Your task to perform on an android device: see sites visited before in the chrome app Image 0: 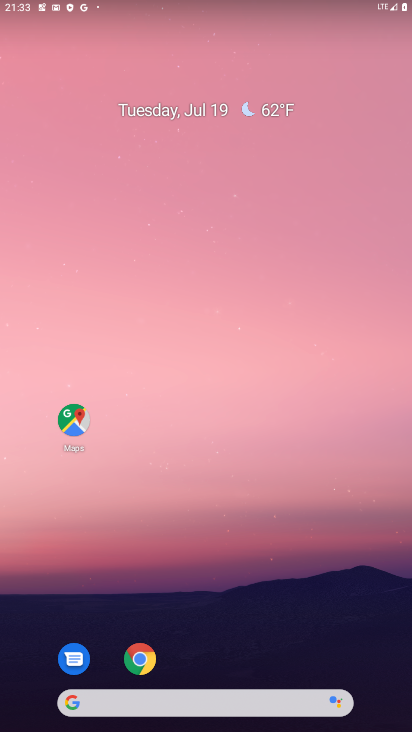
Step 0: press home button
Your task to perform on an android device: see sites visited before in the chrome app Image 1: 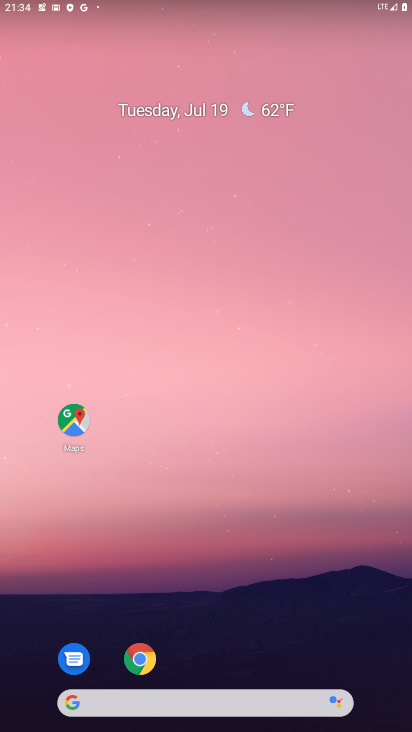
Step 1: click (139, 668)
Your task to perform on an android device: see sites visited before in the chrome app Image 2: 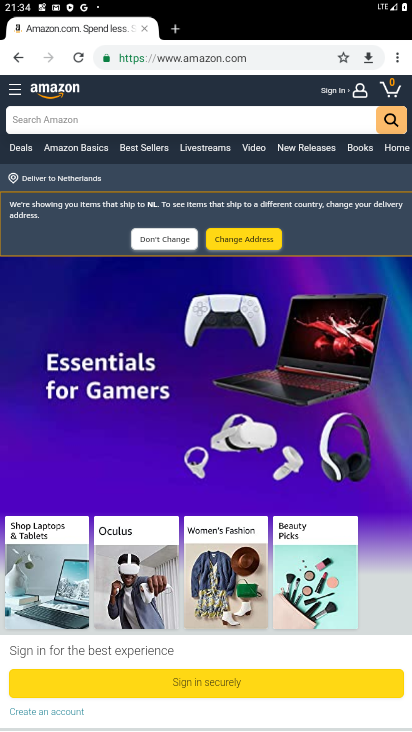
Step 2: drag from (400, 53) to (289, 407)
Your task to perform on an android device: see sites visited before in the chrome app Image 3: 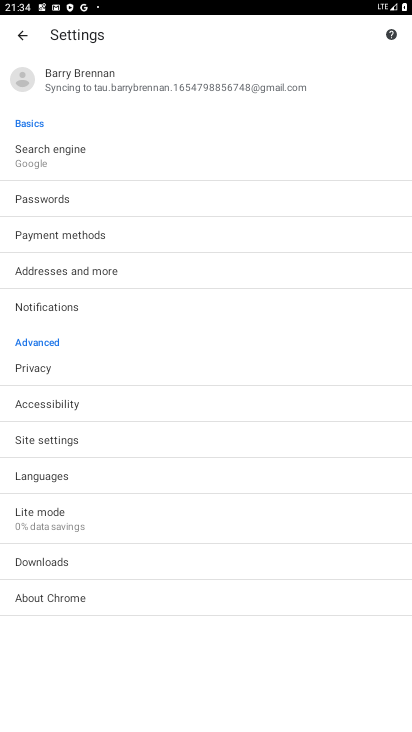
Step 3: click (16, 39)
Your task to perform on an android device: see sites visited before in the chrome app Image 4: 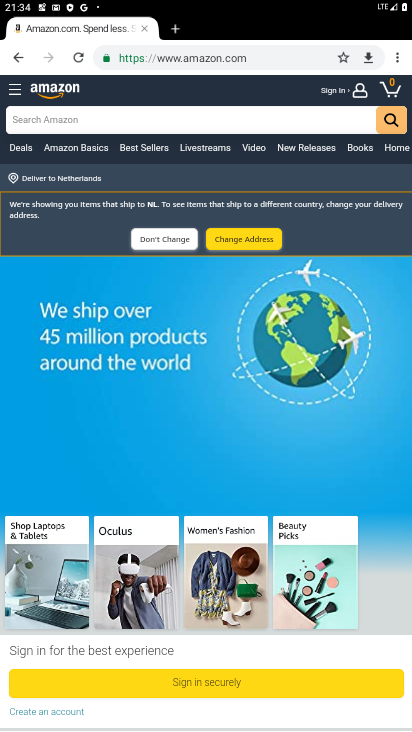
Step 4: click (19, 53)
Your task to perform on an android device: see sites visited before in the chrome app Image 5: 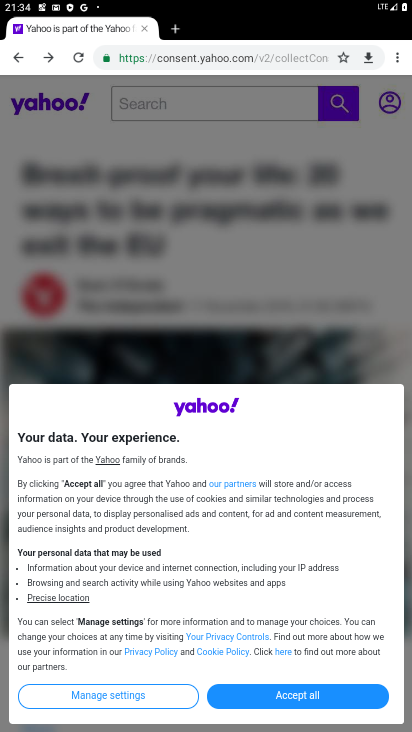
Step 5: drag from (399, 56) to (283, 409)
Your task to perform on an android device: see sites visited before in the chrome app Image 6: 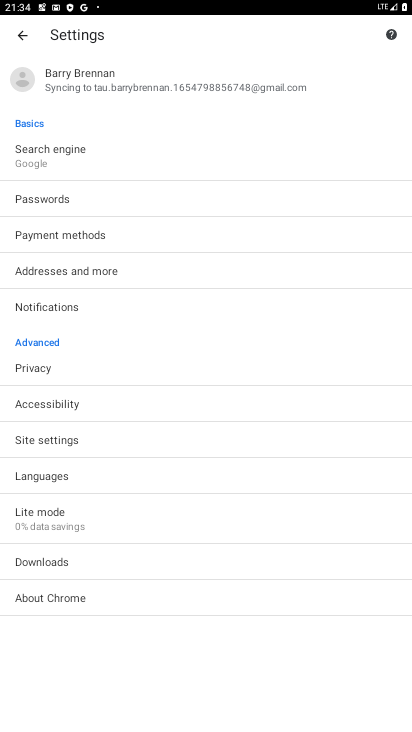
Step 6: click (17, 34)
Your task to perform on an android device: see sites visited before in the chrome app Image 7: 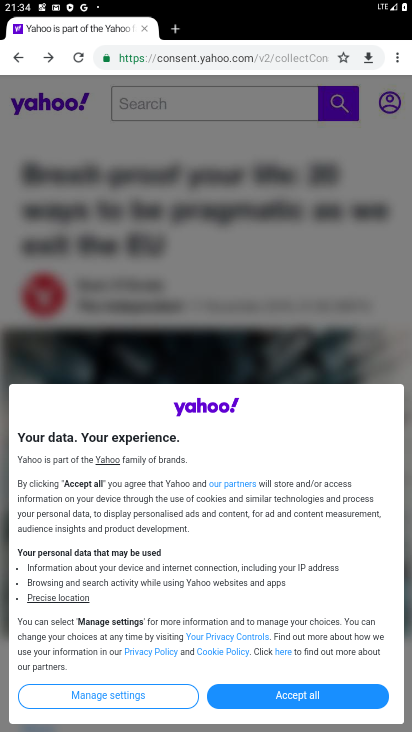
Step 7: task complete